Your task to perform on an android device: Search for Italian restaurants on Maps Image 0: 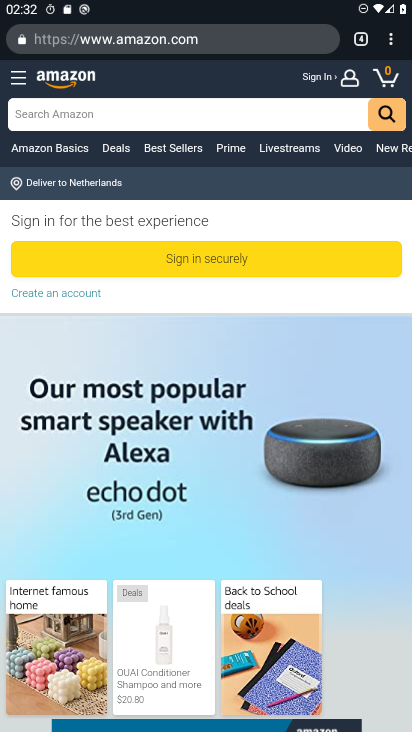
Step 0: press home button
Your task to perform on an android device: Search for Italian restaurants on Maps Image 1: 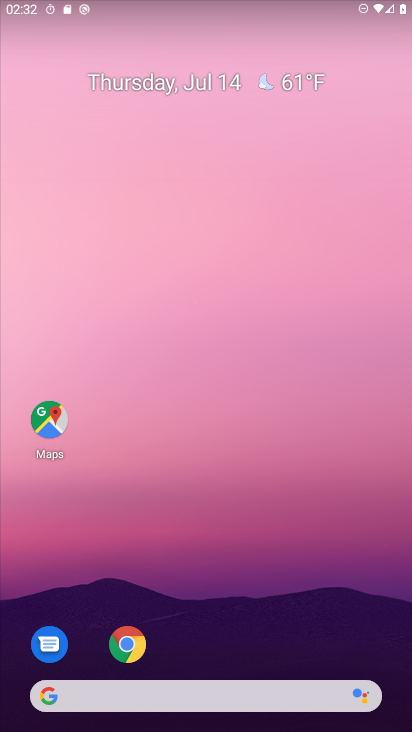
Step 1: drag from (325, 651) to (341, 31)
Your task to perform on an android device: Search for Italian restaurants on Maps Image 2: 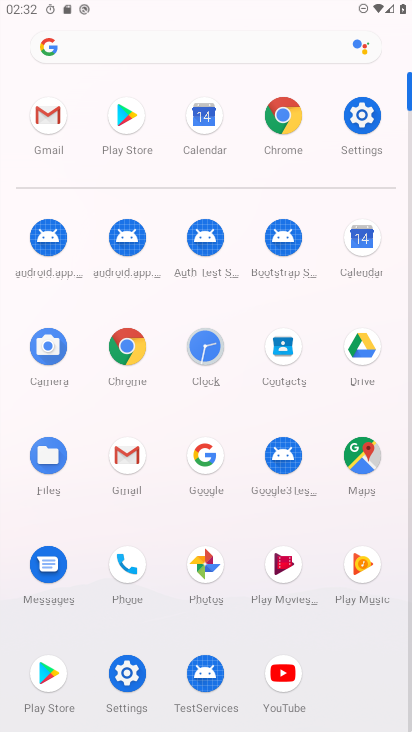
Step 2: click (360, 452)
Your task to perform on an android device: Search for Italian restaurants on Maps Image 3: 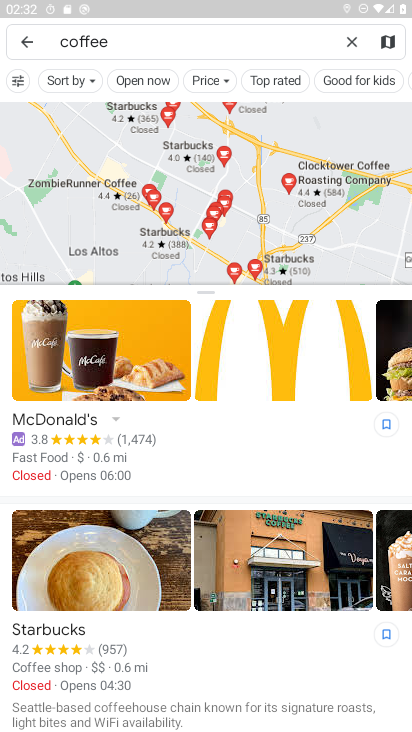
Step 3: click (271, 45)
Your task to perform on an android device: Search for Italian restaurants on Maps Image 4: 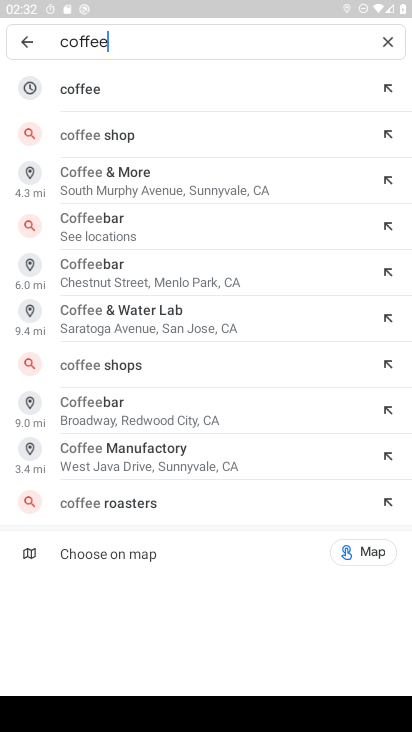
Step 4: click (387, 47)
Your task to perform on an android device: Search for Italian restaurants on Maps Image 5: 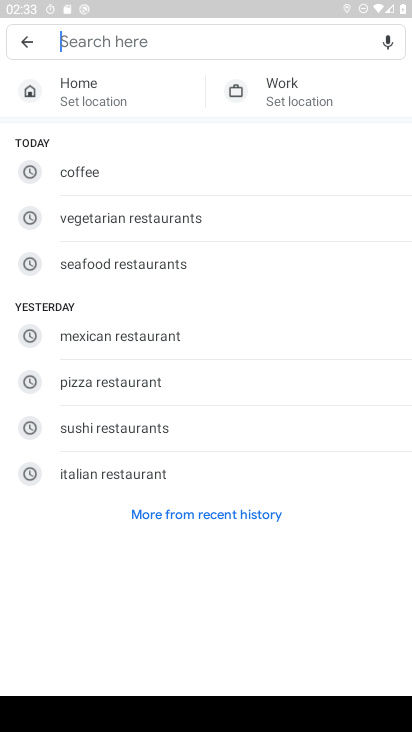
Step 5: type "Italian restaurants"
Your task to perform on an android device: Search for Italian restaurants on Maps Image 6: 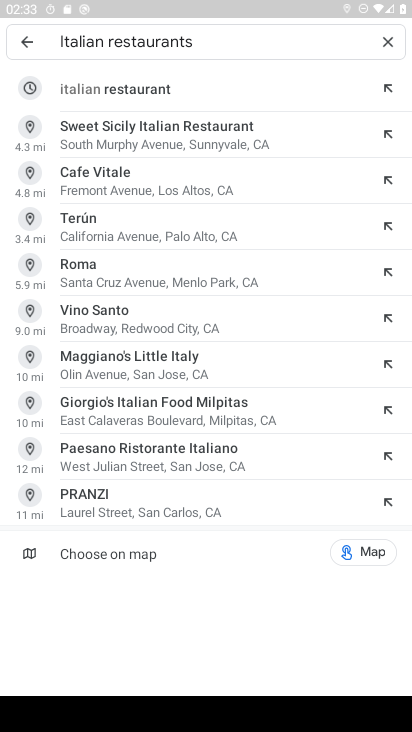
Step 6: press enter
Your task to perform on an android device: Search for Italian restaurants on Maps Image 7: 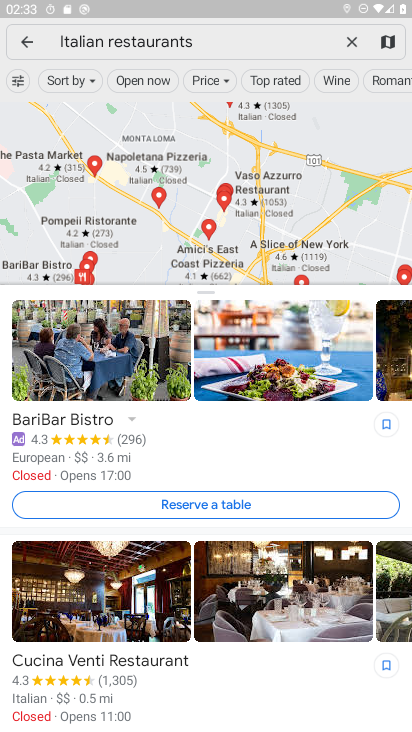
Step 7: task complete